Your task to perform on an android device: turn on airplane mode Image 0: 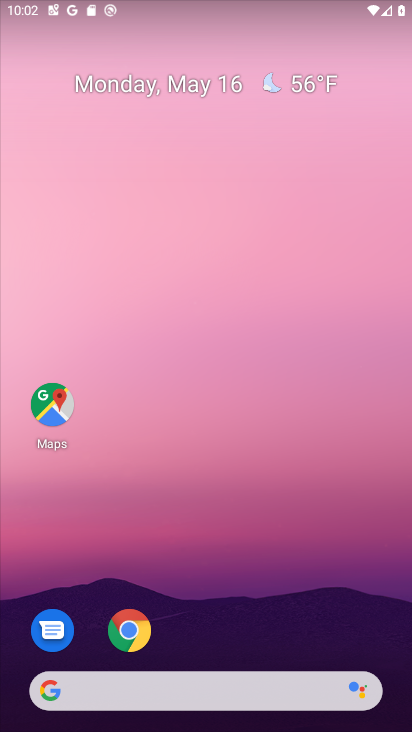
Step 0: drag from (243, 503) to (243, 49)
Your task to perform on an android device: turn on airplane mode Image 1: 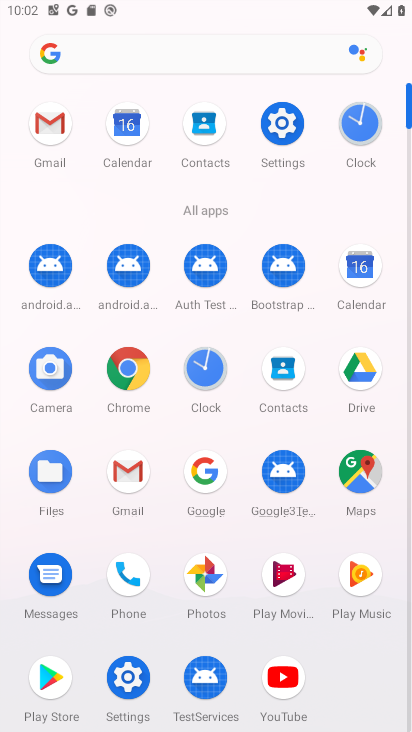
Step 1: click (273, 117)
Your task to perform on an android device: turn on airplane mode Image 2: 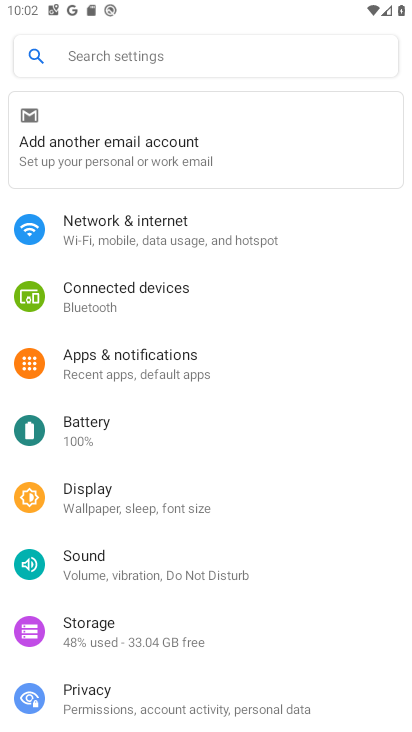
Step 2: click (221, 232)
Your task to perform on an android device: turn on airplane mode Image 3: 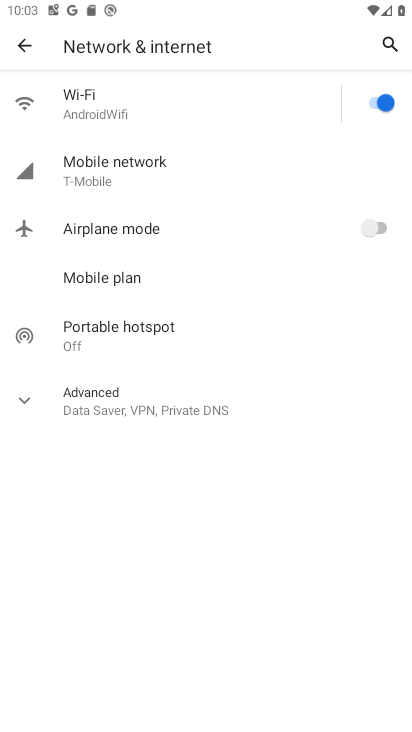
Step 3: click (370, 223)
Your task to perform on an android device: turn on airplane mode Image 4: 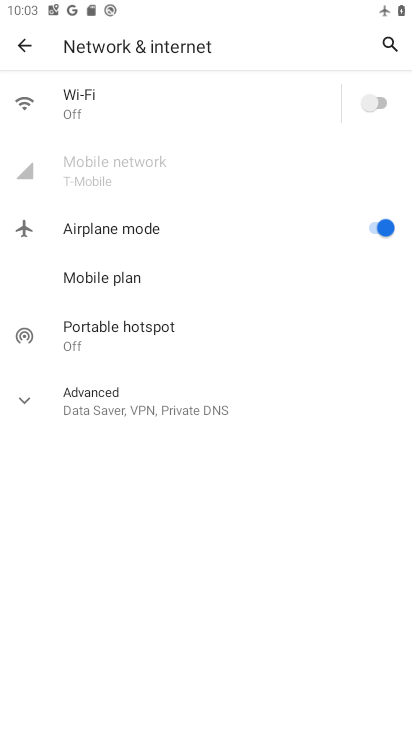
Step 4: task complete